Your task to perform on an android device: change the clock display to digital Image 0: 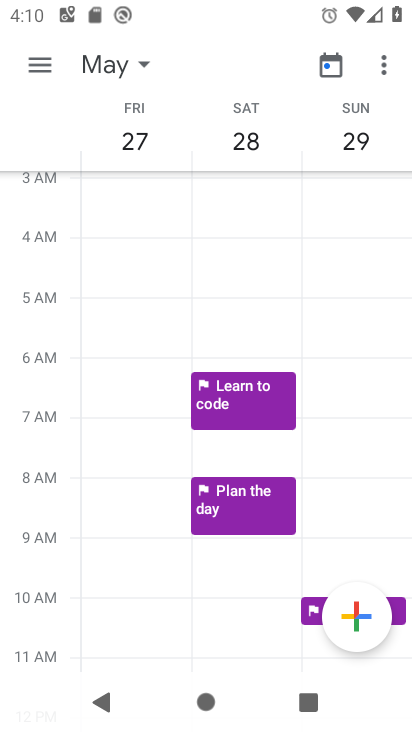
Step 0: press home button
Your task to perform on an android device: change the clock display to digital Image 1: 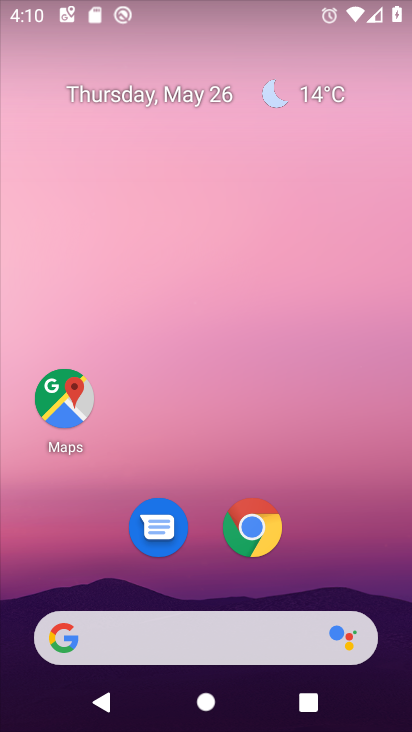
Step 1: drag from (375, 562) to (309, 99)
Your task to perform on an android device: change the clock display to digital Image 2: 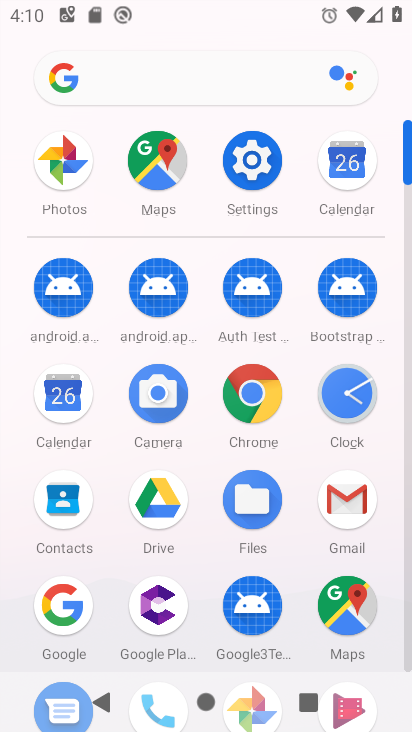
Step 2: click (356, 395)
Your task to perform on an android device: change the clock display to digital Image 3: 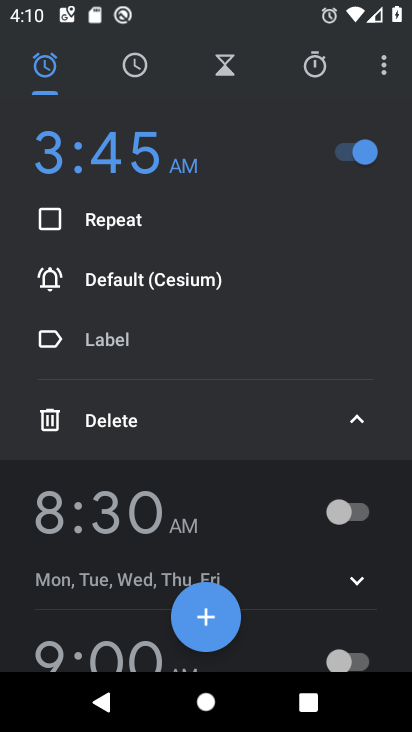
Step 3: click (378, 72)
Your task to perform on an android device: change the clock display to digital Image 4: 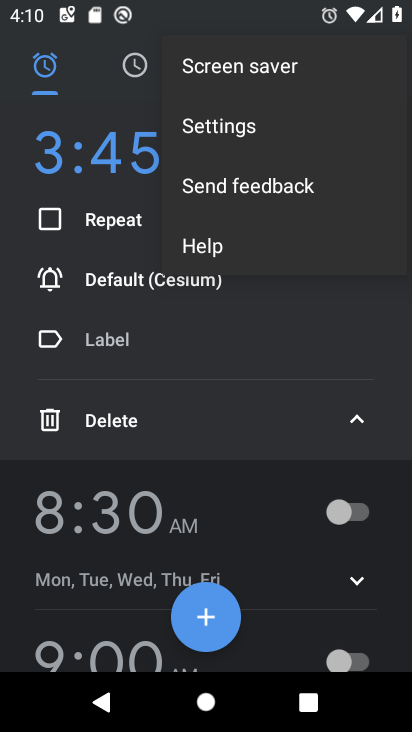
Step 4: click (263, 120)
Your task to perform on an android device: change the clock display to digital Image 5: 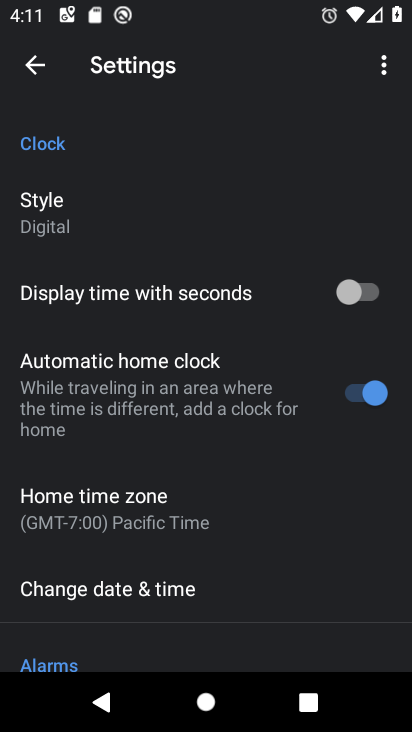
Step 5: task complete